Your task to perform on an android device: install app "Pandora - Music & Podcasts" Image 0: 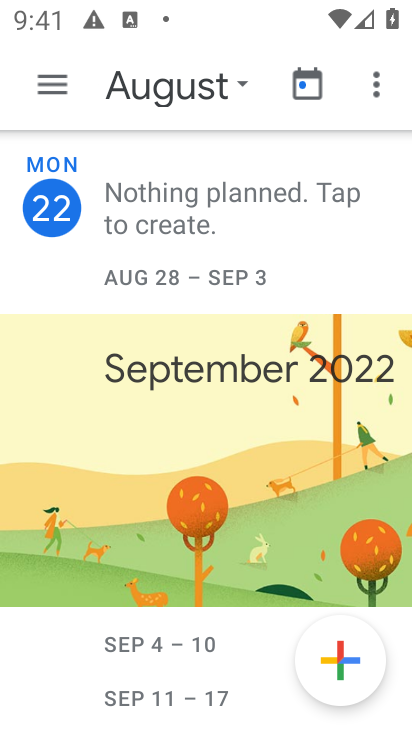
Step 0: press home button
Your task to perform on an android device: install app "Pandora - Music & Podcasts" Image 1: 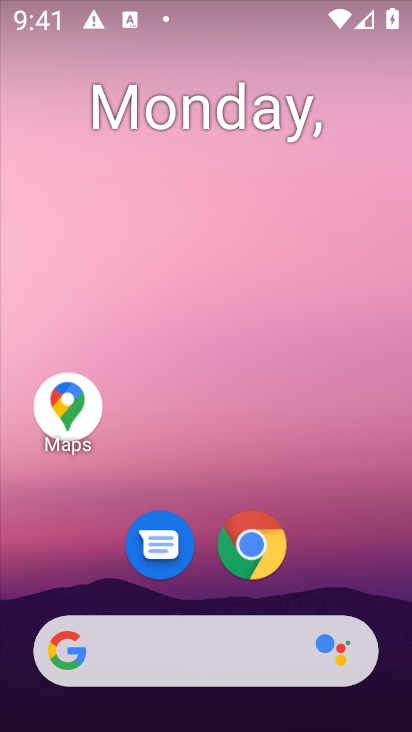
Step 1: drag from (365, 604) to (364, 91)
Your task to perform on an android device: install app "Pandora - Music & Podcasts" Image 2: 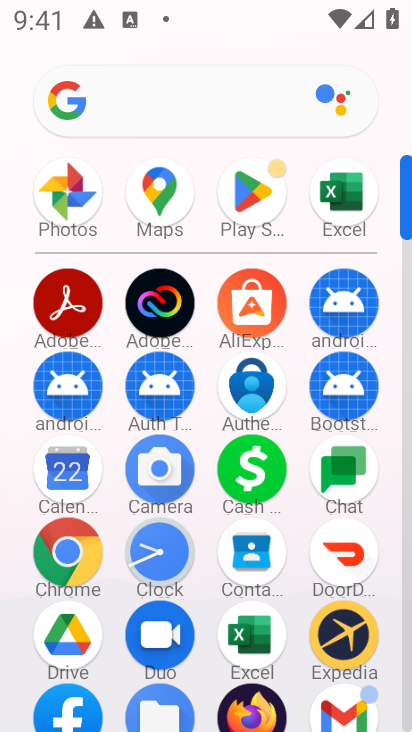
Step 2: click (243, 191)
Your task to perform on an android device: install app "Pandora - Music & Podcasts" Image 3: 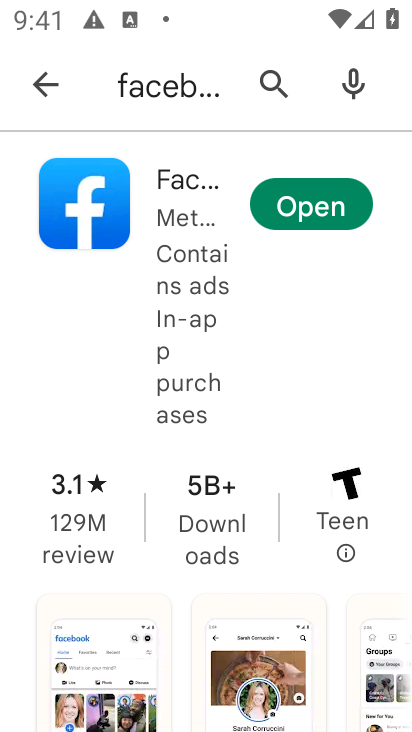
Step 3: press back button
Your task to perform on an android device: install app "Pandora - Music & Podcasts" Image 4: 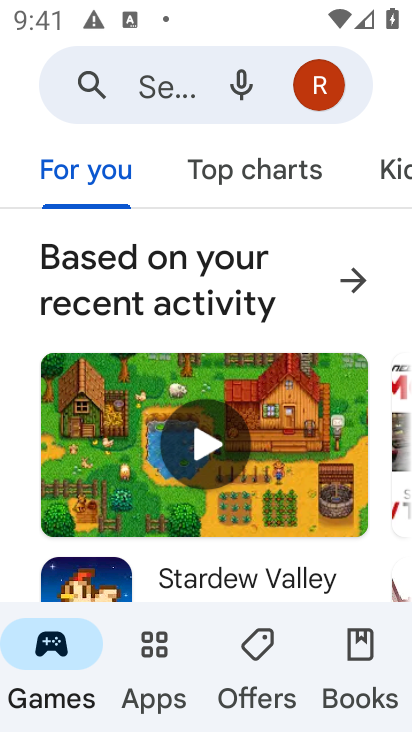
Step 4: click (148, 89)
Your task to perform on an android device: install app "Pandora - Music & Podcasts" Image 5: 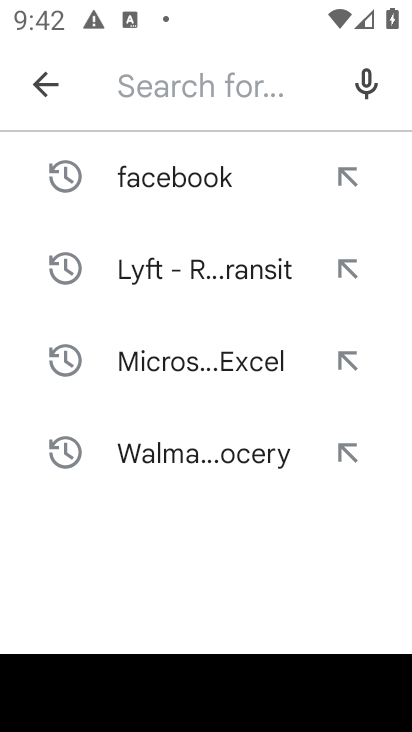
Step 5: type "Pandora - Music & Podcasts"
Your task to perform on an android device: install app "Pandora - Music & Podcasts" Image 6: 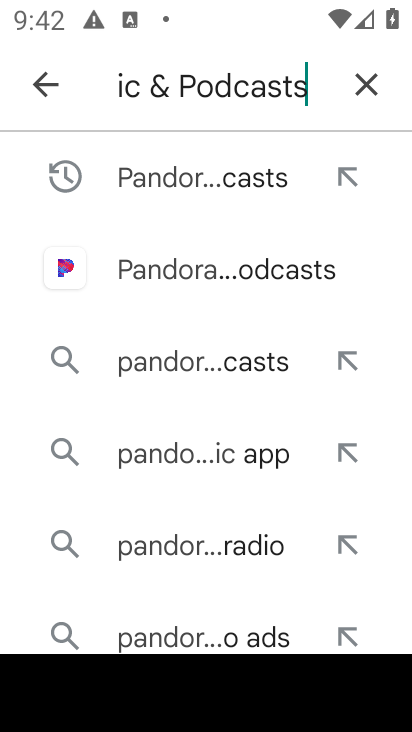
Step 6: press enter
Your task to perform on an android device: install app "Pandora - Music & Podcasts" Image 7: 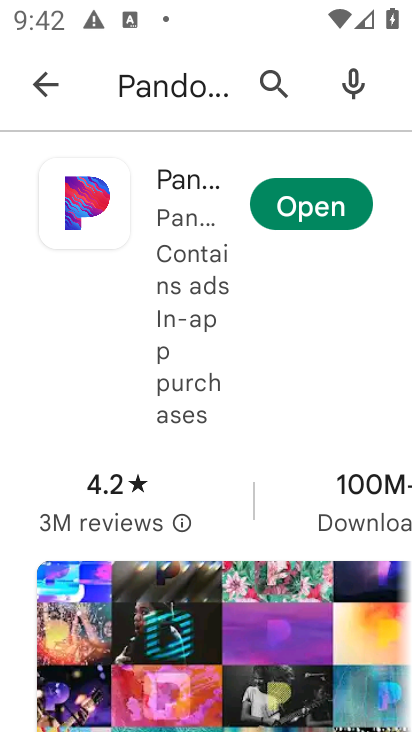
Step 7: task complete